Your task to perform on an android device: Open calendar and show me the third week of next month Image 0: 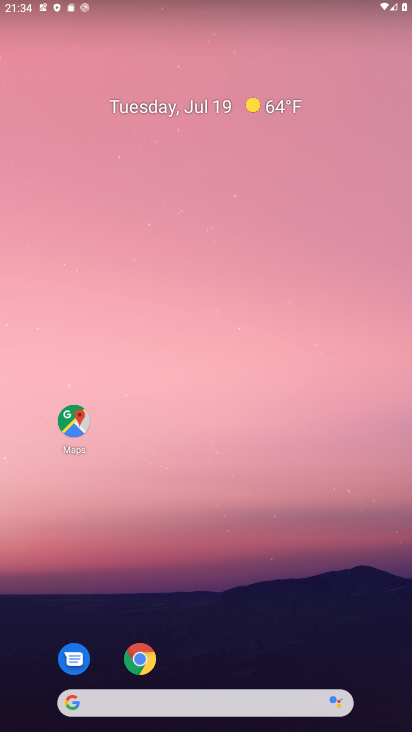
Step 0: click (137, 102)
Your task to perform on an android device: Open calendar and show me the third week of next month Image 1: 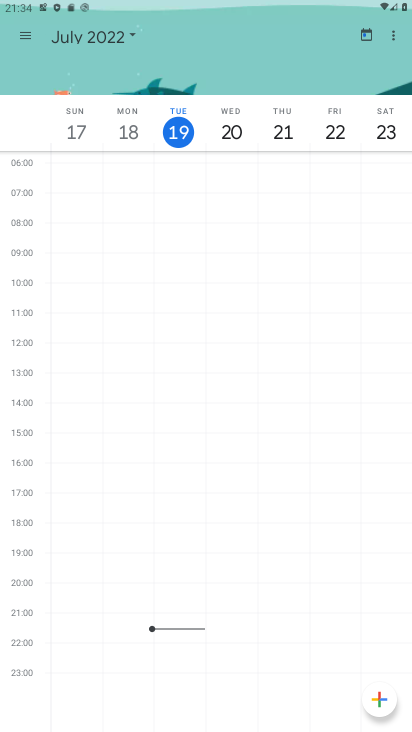
Step 1: click (110, 46)
Your task to perform on an android device: Open calendar and show me the third week of next month Image 2: 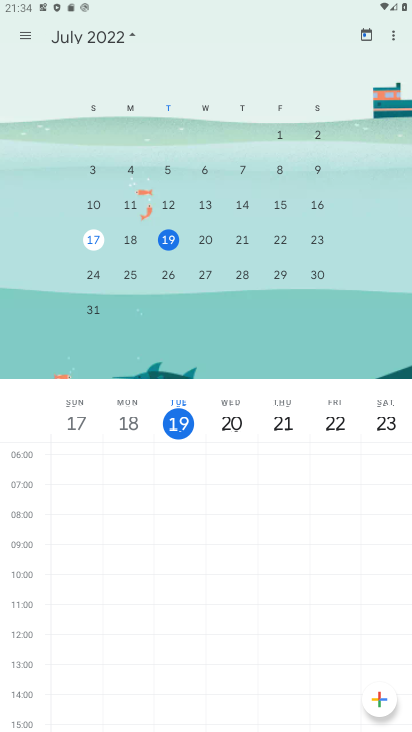
Step 2: drag from (353, 312) to (84, 334)
Your task to perform on an android device: Open calendar and show me the third week of next month Image 3: 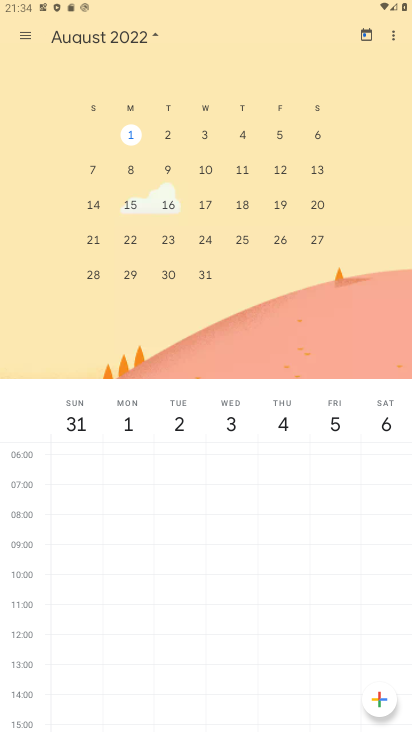
Step 3: click (167, 201)
Your task to perform on an android device: Open calendar and show me the third week of next month Image 4: 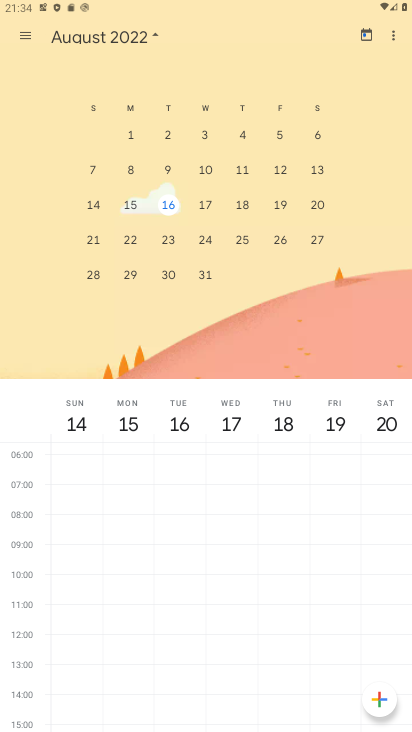
Step 4: task complete